Your task to perform on an android device: Open settings Image 0: 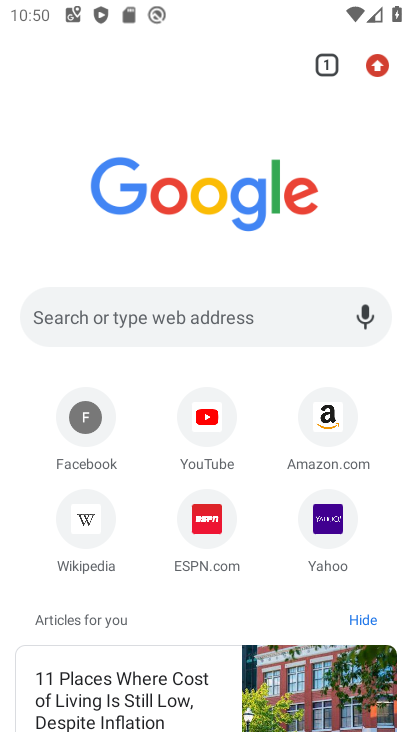
Step 0: press home button
Your task to perform on an android device: Open settings Image 1: 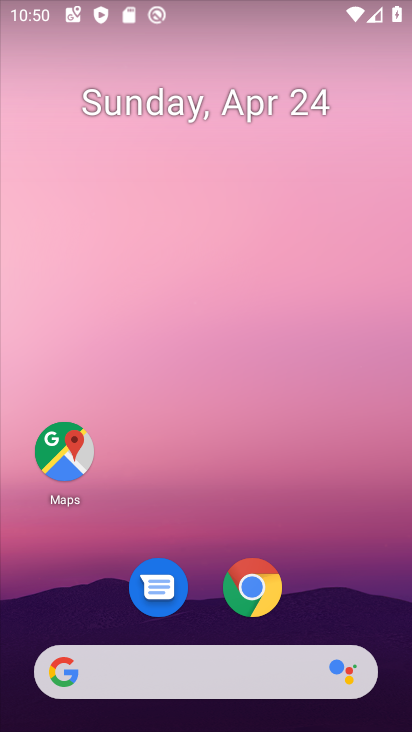
Step 1: drag from (158, 533) to (212, 145)
Your task to perform on an android device: Open settings Image 2: 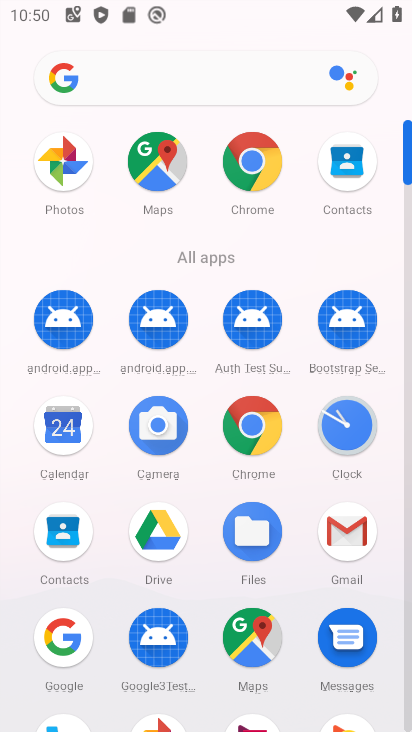
Step 2: drag from (285, 514) to (311, 213)
Your task to perform on an android device: Open settings Image 3: 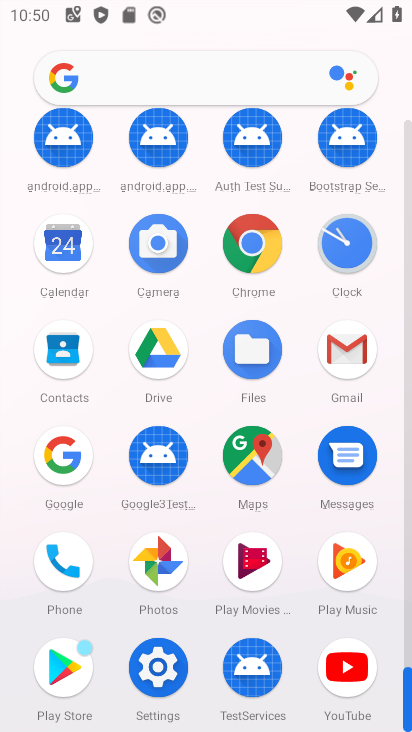
Step 3: click (155, 668)
Your task to perform on an android device: Open settings Image 4: 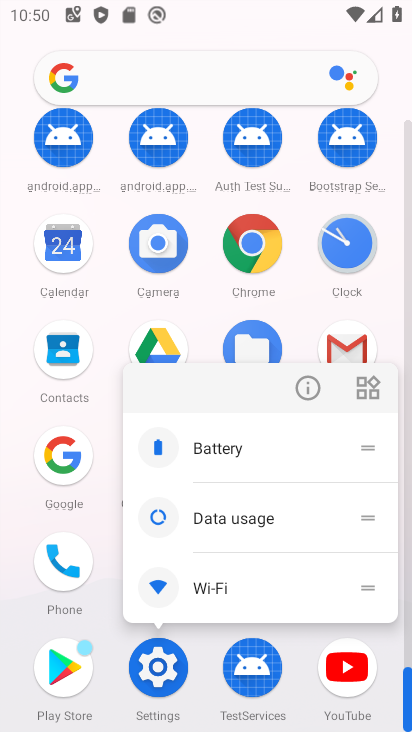
Step 4: click (163, 654)
Your task to perform on an android device: Open settings Image 5: 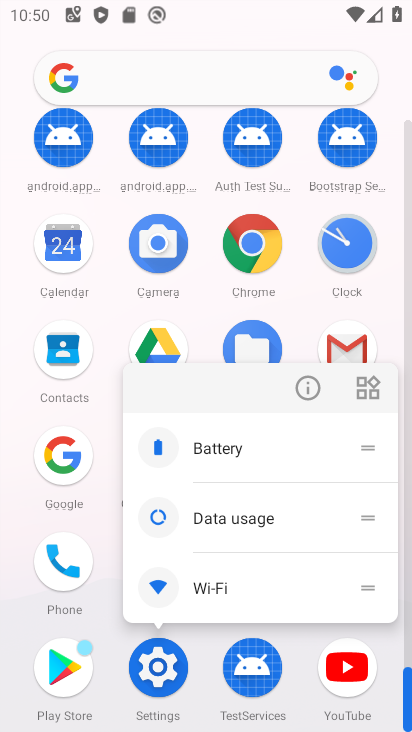
Step 5: click (150, 668)
Your task to perform on an android device: Open settings Image 6: 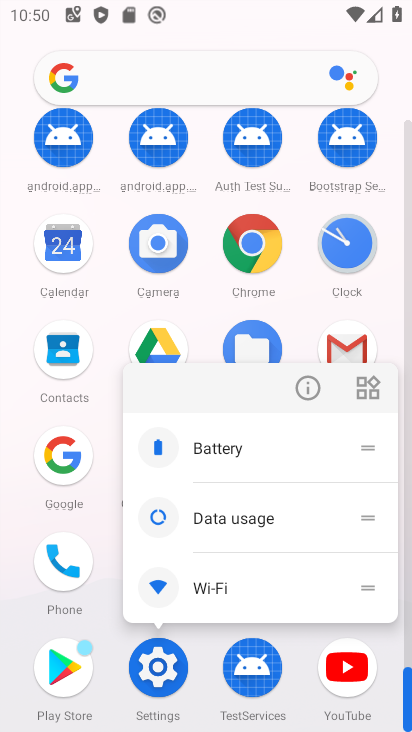
Step 6: click (155, 660)
Your task to perform on an android device: Open settings Image 7: 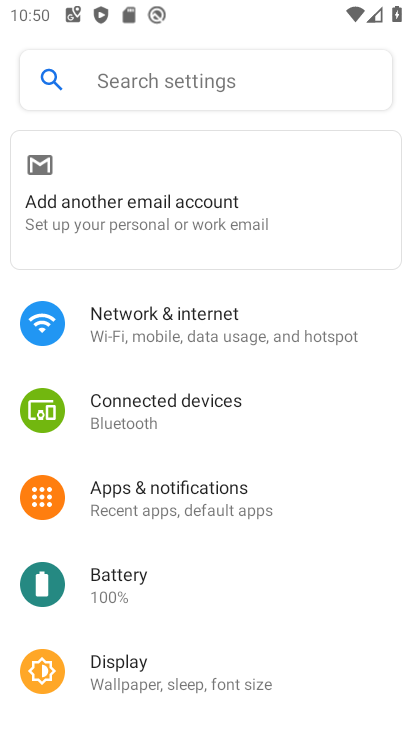
Step 7: task complete